Your task to perform on an android device: Go to Maps Image 0: 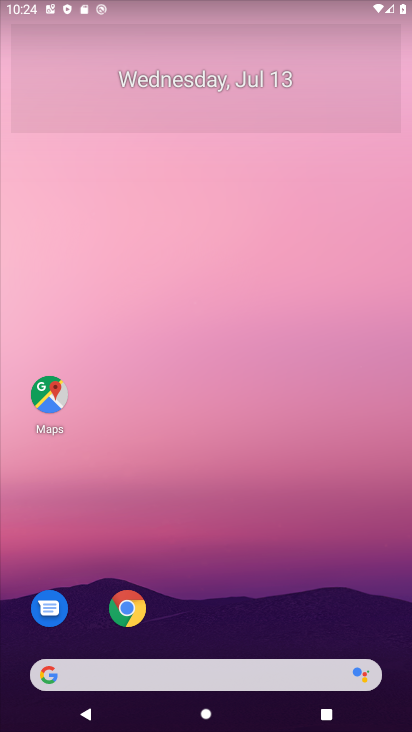
Step 0: press home button
Your task to perform on an android device: Go to Maps Image 1: 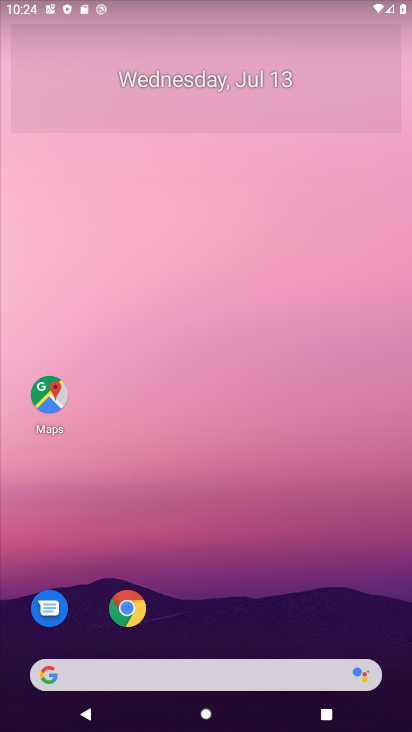
Step 1: click (46, 385)
Your task to perform on an android device: Go to Maps Image 2: 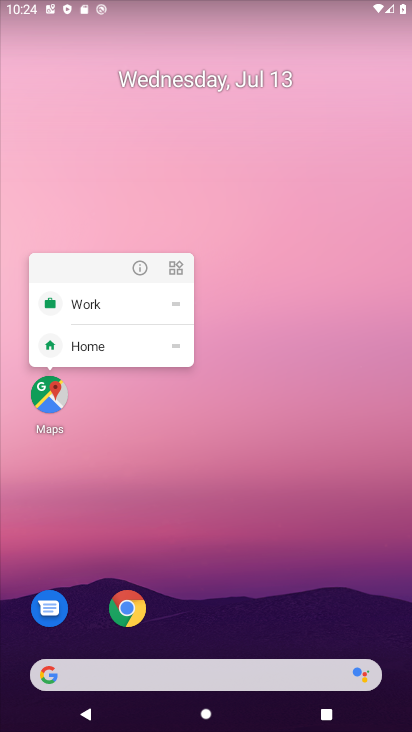
Step 2: click (46, 391)
Your task to perform on an android device: Go to Maps Image 3: 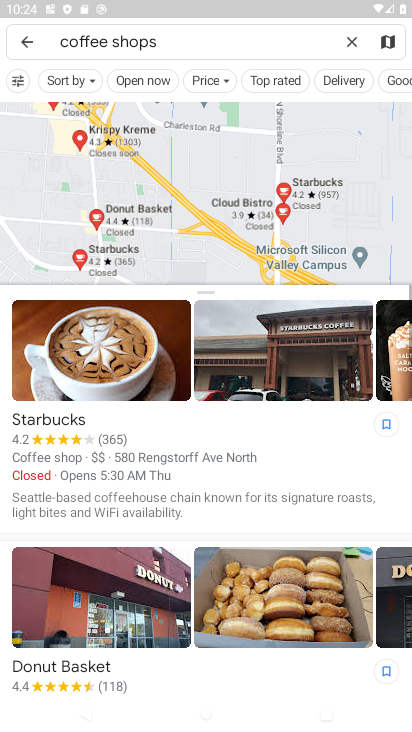
Step 3: click (20, 42)
Your task to perform on an android device: Go to Maps Image 4: 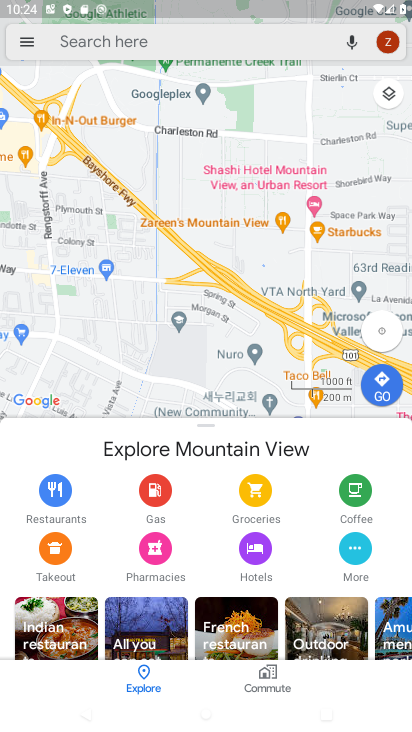
Step 4: task complete